Your task to perform on an android device: allow cookies in the chrome app Image 0: 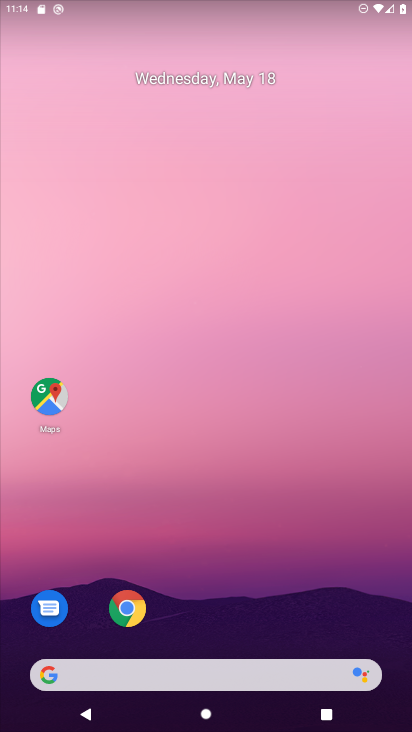
Step 0: click (128, 607)
Your task to perform on an android device: allow cookies in the chrome app Image 1: 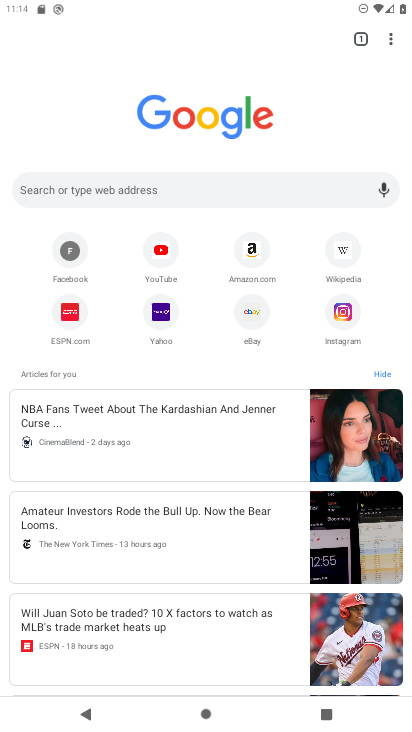
Step 1: click (391, 36)
Your task to perform on an android device: allow cookies in the chrome app Image 2: 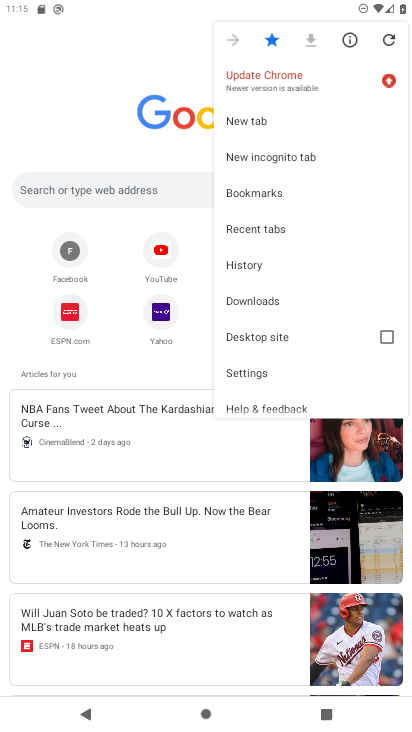
Step 2: click (255, 373)
Your task to perform on an android device: allow cookies in the chrome app Image 3: 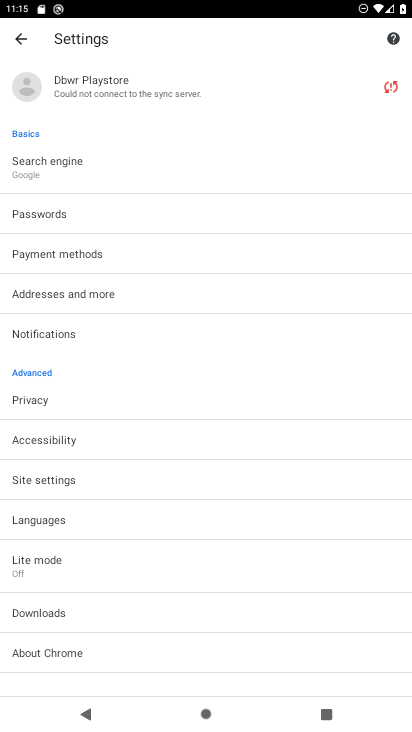
Step 3: click (48, 480)
Your task to perform on an android device: allow cookies in the chrome app Image 4: 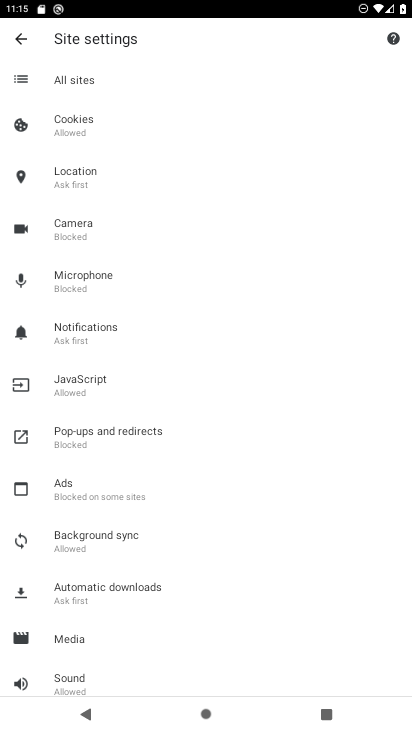
Step 4: click (81, 133)
Your task to perform on an android device: allow cookies in the chrome app Image 5: 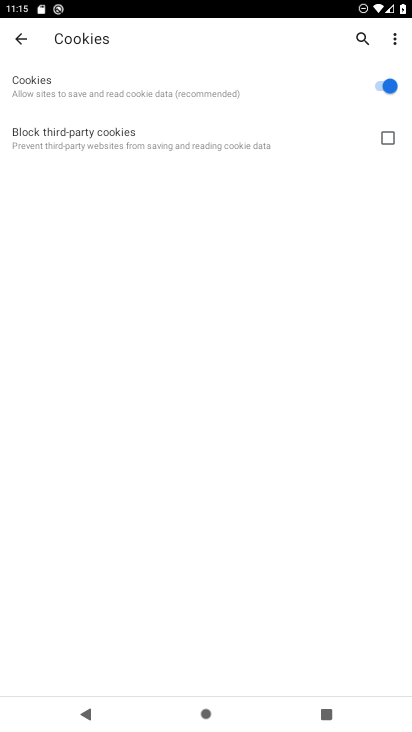
Step 5: click (386, 142)
Your task to perform on an android device: allow cookies in the chrome app Image 6: 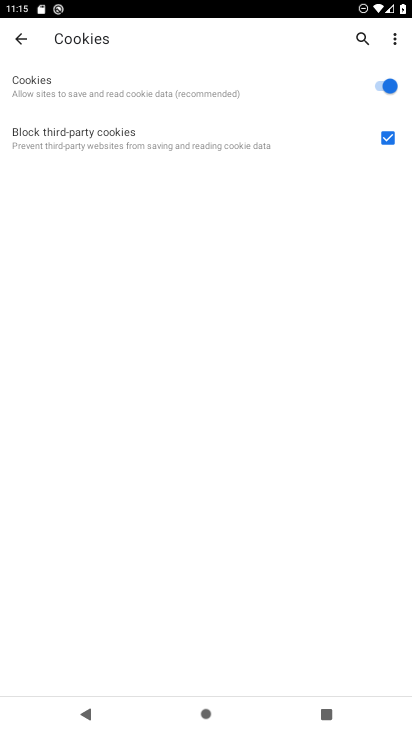
Step 6: task complete